Your task to perform on an android device: turn on airplane mode Image 0: 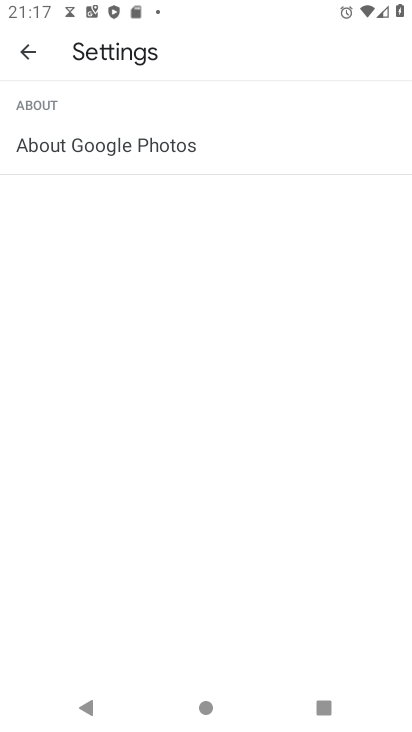
Step 0: press home button
Your task to perform on an android device: turn on airplane mode Image 1: 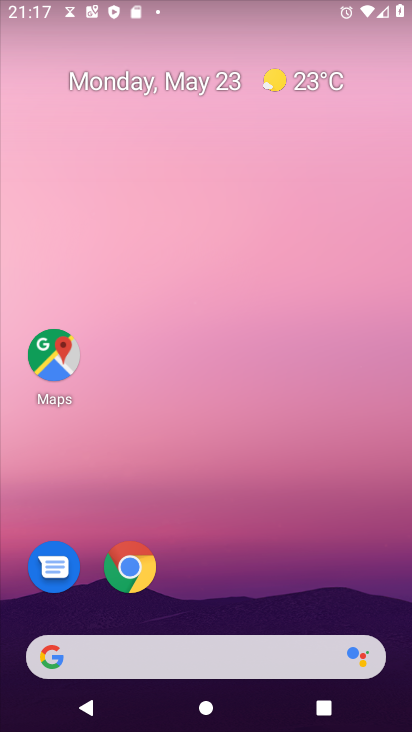
Step 1: drag from (337, 582) to (329, 151)
Your task to perform on an android device: turn on airplane mode Image 2: 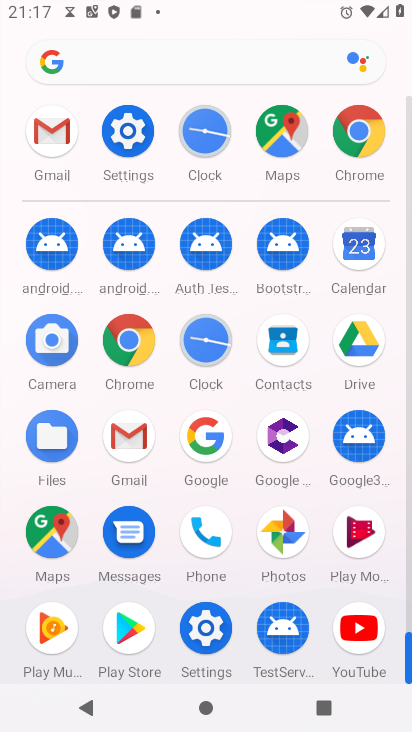
Step 2: click (129, 120)
Your task to perform on an android device: turn on airplane mode Image 3: 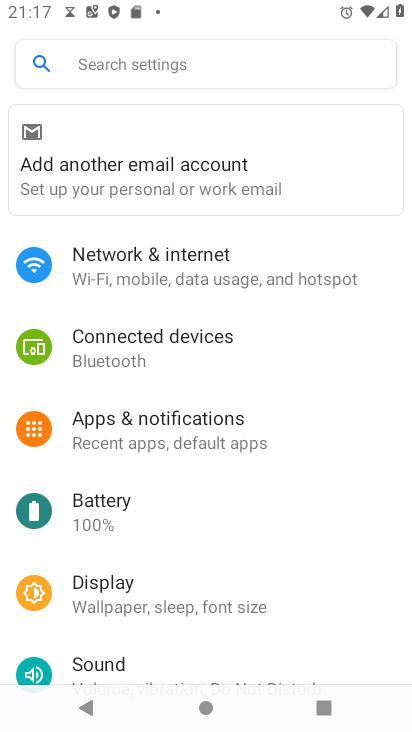
Step 3: click (237, 257)
Your task to perform on an android device: turn on airplane mode Image 4: 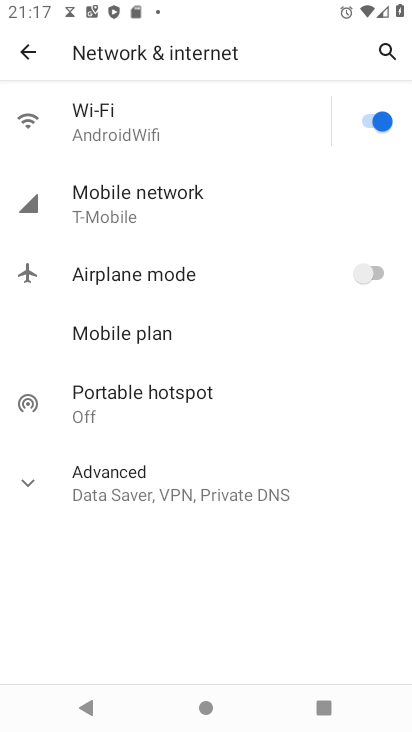
Step 4: click (369, 261)
Your task to perform on an android device: turn on airplane mode Image 5: 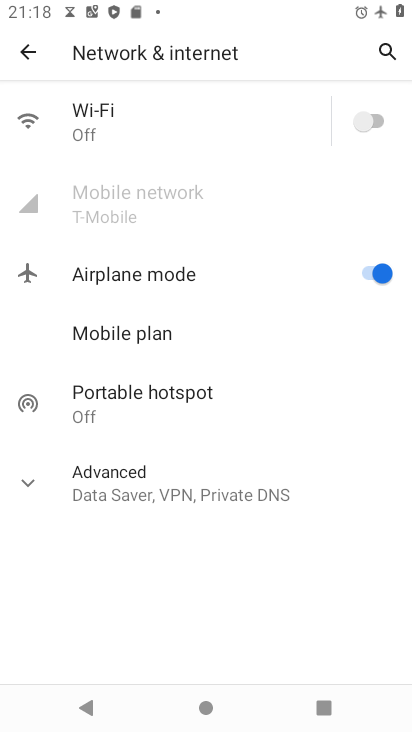
Step 5: task complete